Your task to perform on an android device: visit the assistant section in the google photos Image 0: 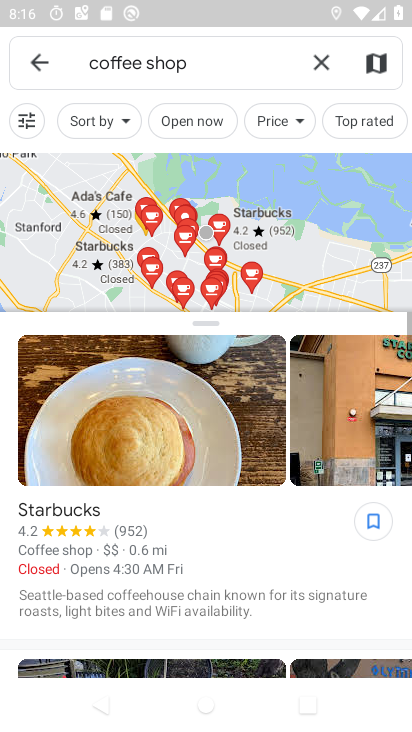
Step 0: drag from (285, 602) to (276, 298)
Your task to perform on an android device: visit the assistant section in the google photos Image 1: 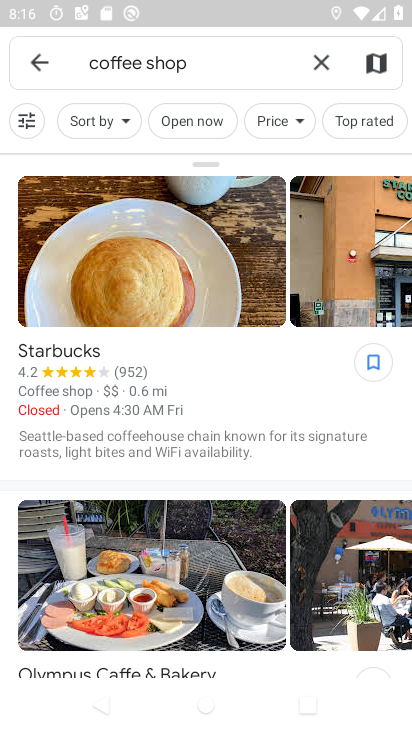
Step 1: press home button
Your task to perform on an android device: visit the assistant section in the google photos Image 2: 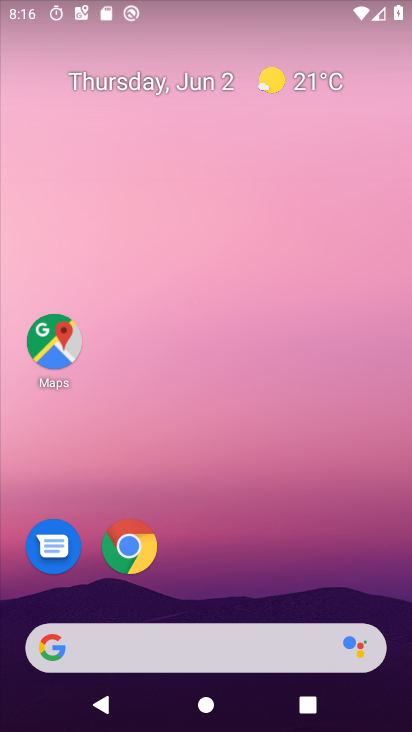
Step 2: drag from (337, 593) to (355, 194)
Your task to perform on an android device: visit the assistant section in the google photos Image 3: 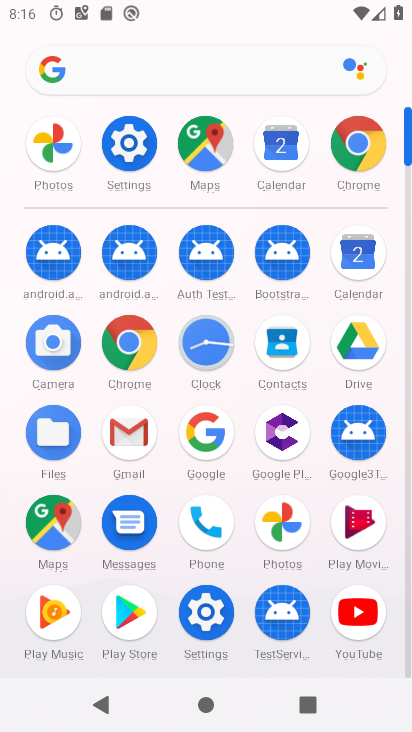
Step 3: click (278, 520)
Your task to perform on an android device: visit the assistant section in the google photos Image 4: 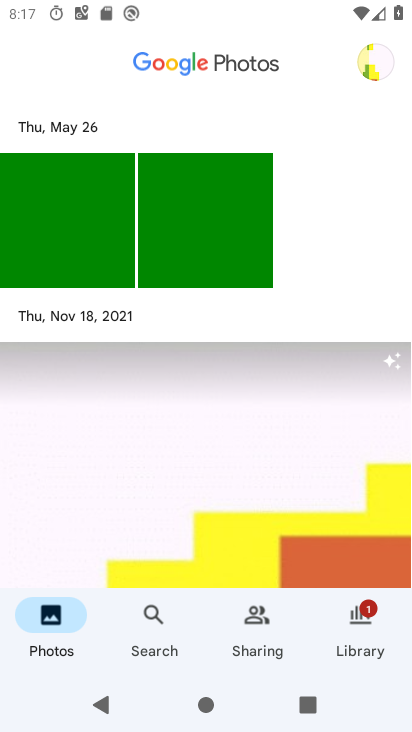
Step 4: click (165, 652)
Your task to perform on an android device: visit the assistant section in the google photos Image 5: 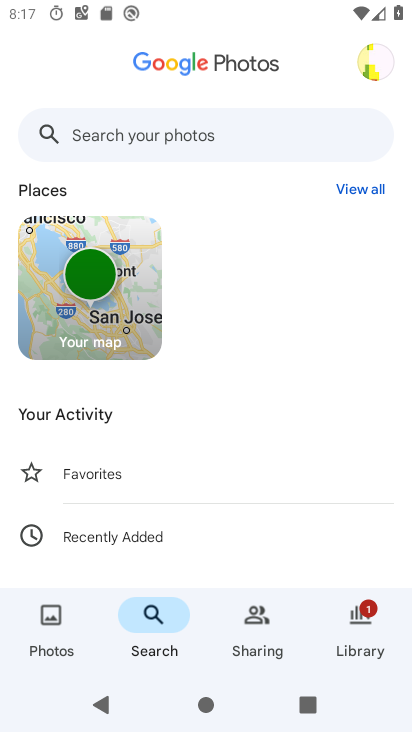
Step 5: click (171, 129)
Your task to perform on an android device: visit the assistant section in the google photos Image 6: 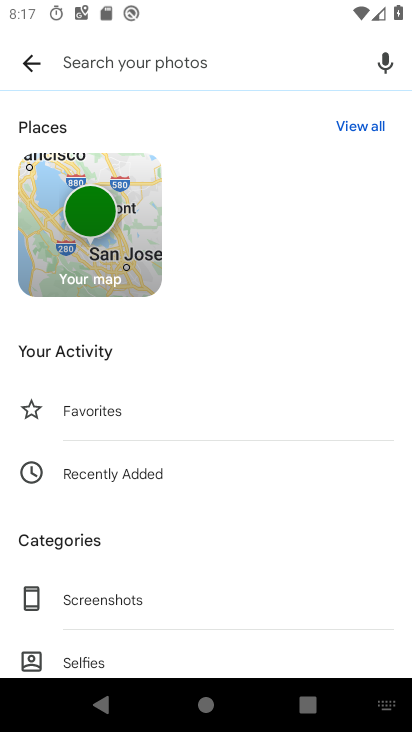
Step 6: type "assistant section"
Your task to perform on an android device: visit the assistant section in the google photos Image 7: 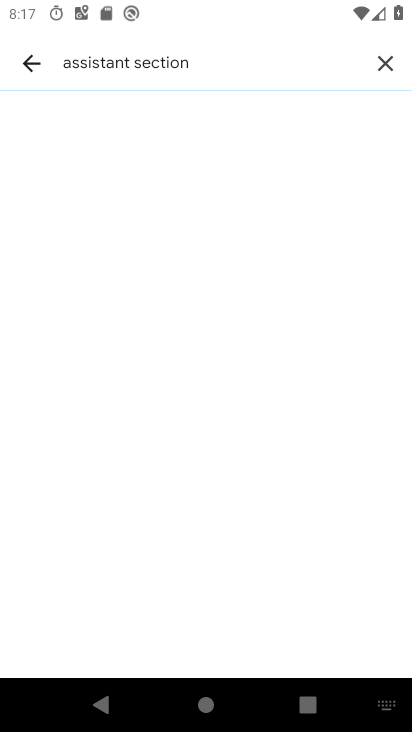
Step 7: task complete